Your task to perform on an android device: toggle data saver in the chrome app Image 0: 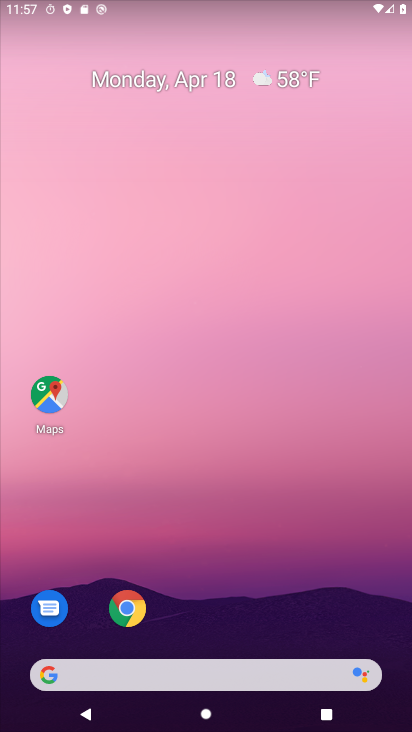
Step 0: drag from (202, 704) to (241, 164)
Your task to perform on an android device: toggle data saver in the chrome app Image 1: 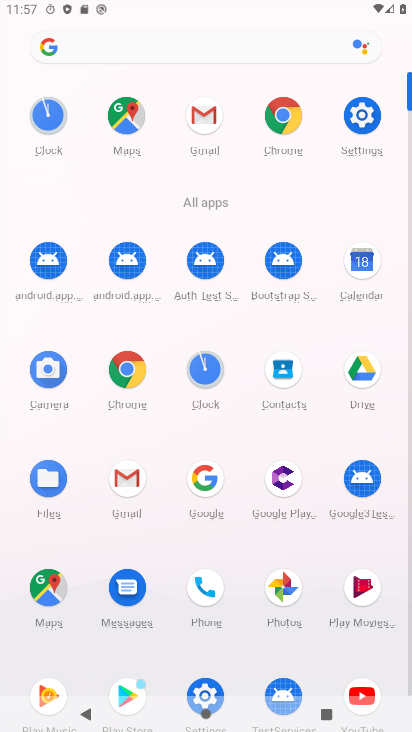
Step 1: click (136, 375)
Your task to perform on an android device: toggle data saver in the chrome app Image 2: 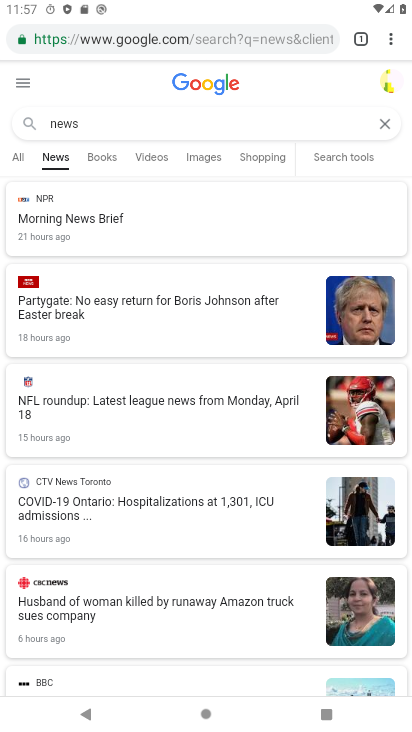
Step 2: click (391, 36)
Your task to perform on an android device: toggle data saver in the chrome app Image 3: 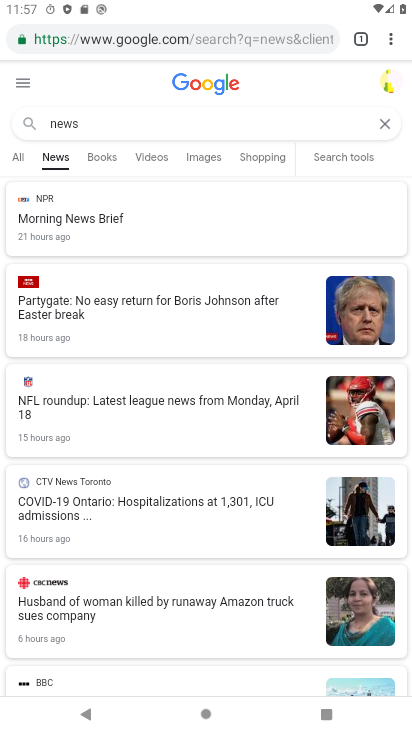
Step 3: click (390, 28)
Your task to perform on an android device: toggle data saver in the chrome app Image 4: 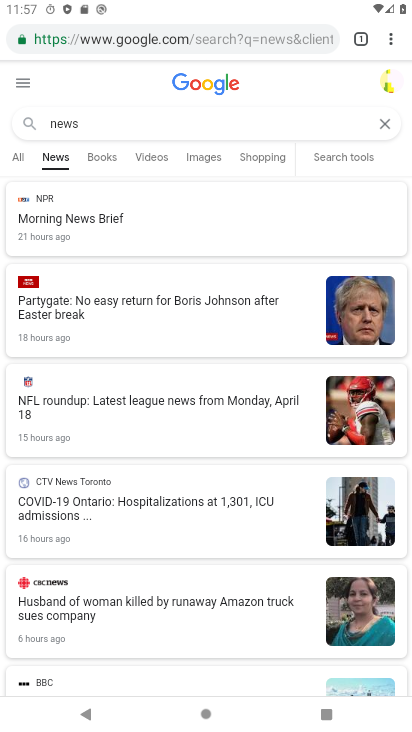
Step 4: drag from (389, 38) to (255, 487)
Your task to perform on an android device: toggle data saver in the chrome app Image 5: 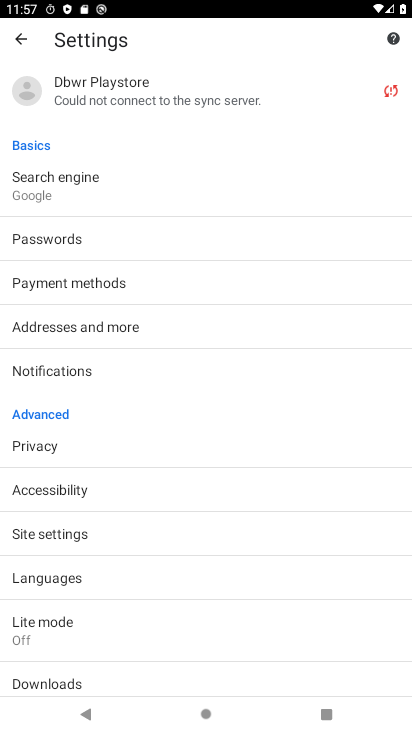
Step 5: click (53, 632)
Your task to perform on an android device: toggle data saver in the chrome app Image 6: 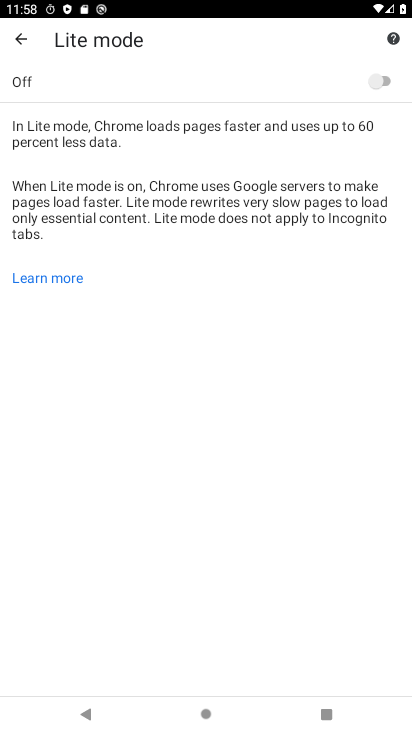
Step 6: click (378, 78)
Your task to perform on an android device: toggle data saver in the chrome app Image 7: 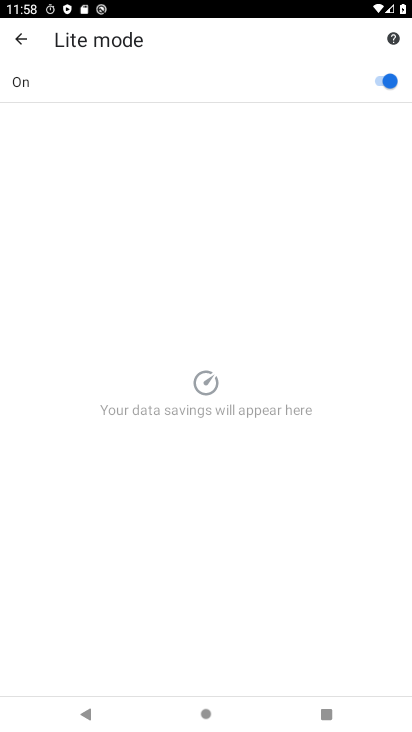
Step 7: task complete